Your task to perform on an android device: Go to location settings Image 0: 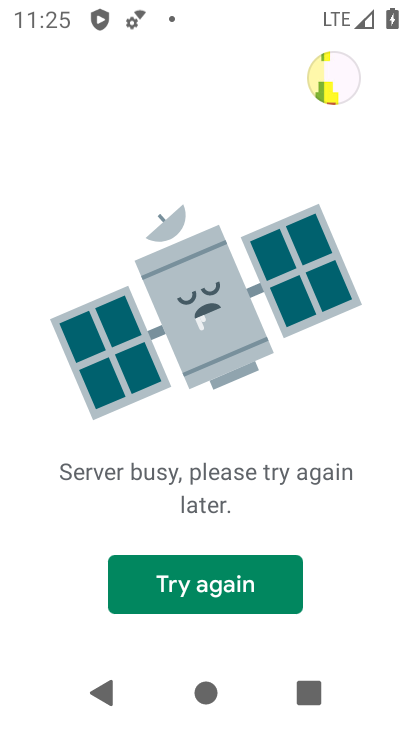
Step 0: task impossible